Your task to perform on an android device: check the backup settings in the google photos Image 0: 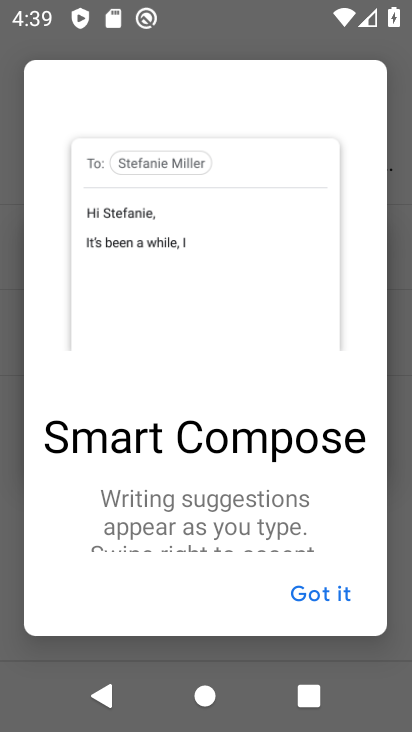
Step 0: press home button
Your task to perform on an android device: check the backup settings in the google photos Image 1: 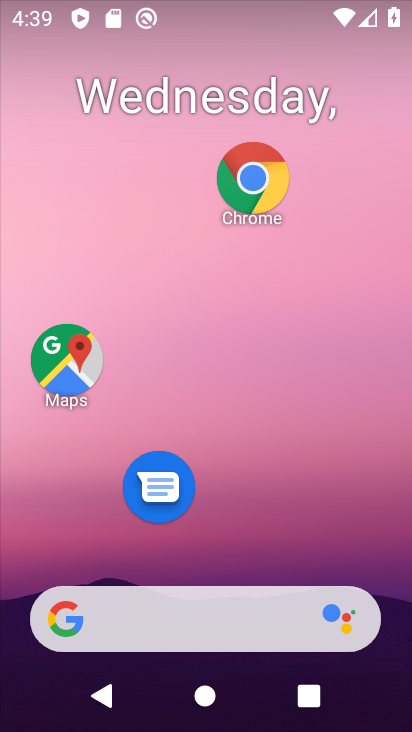
Step 1: drag from (381, 533) to (297, 115)
Your task to perform on an android device: check the backup settings in the google photos Image 2: 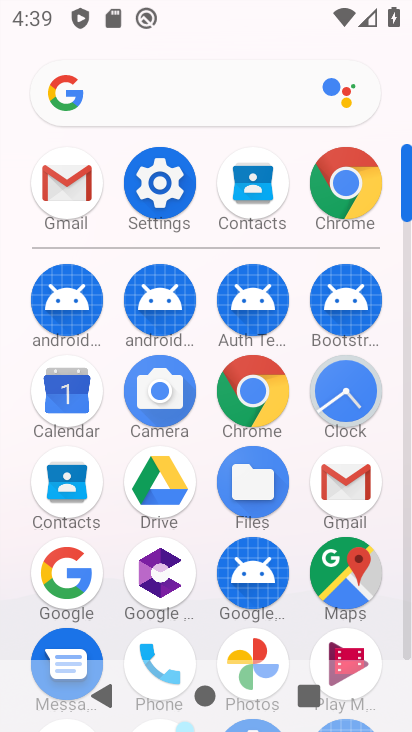
Step 2: click (268, 653)
Your task to perform on an android device: check the backup settings in the google photos Image 3: 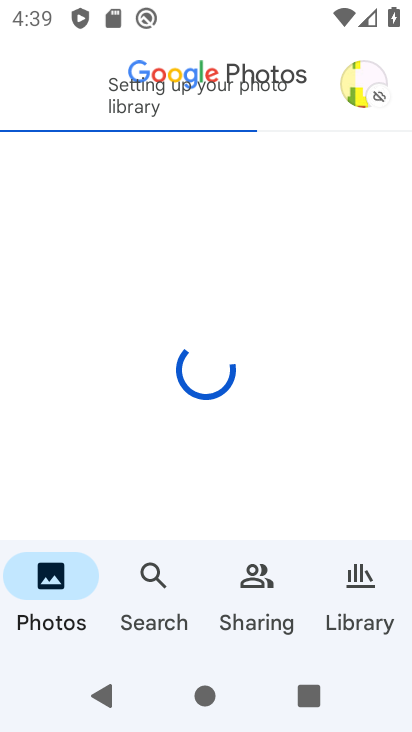
Step 3: click (363, 86)
Your task to perform on an android device: check the backup settings in the google photos Image 4: 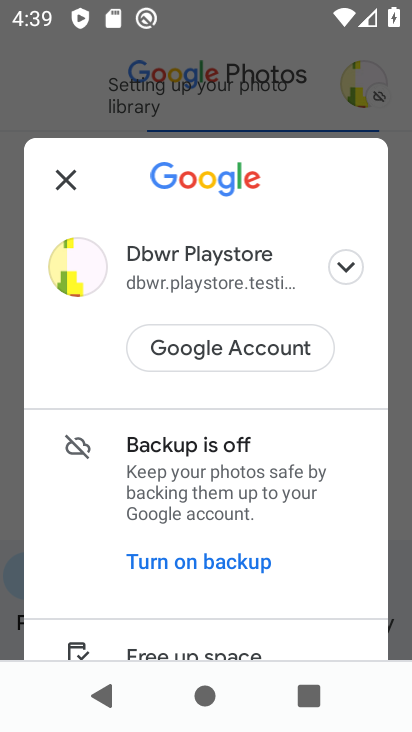
Step 4: drag from (289, 456) to (271, 182)
Your task to perform on an android device: check the backup settings in the google photos Image 5: 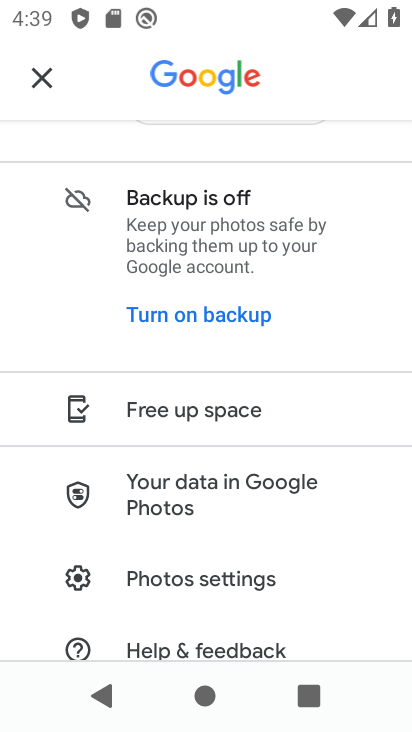
Step 5: click (208, 585)
Your task to perform on an android device: check the backup settings in the google photos Image 6: 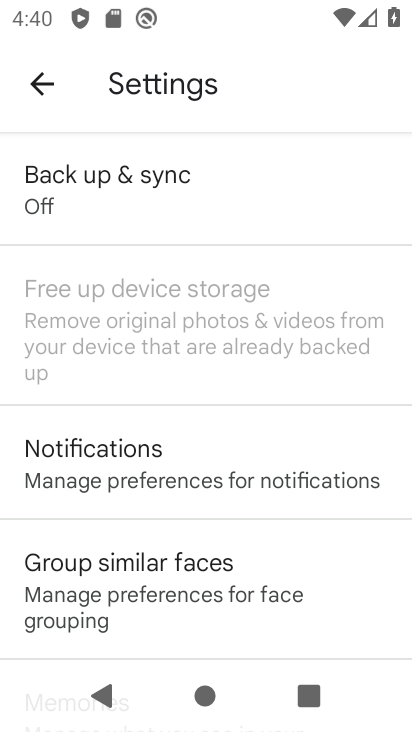
Step 6: click (195, 201)
Your task to perform on an android device: check the backup settings in the google photos Image 7: 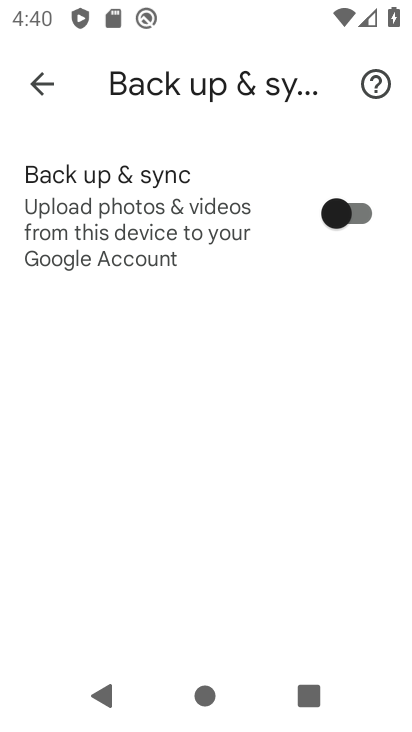
Step 7: task complete